Your task to perform on an android device: Open eBay Image 0: 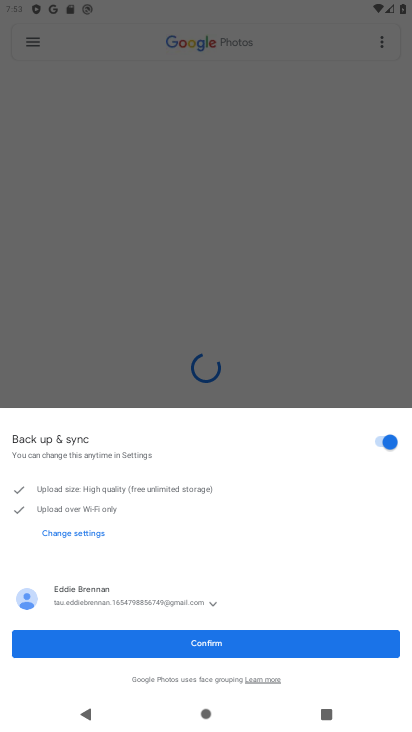
Step 0: press home button
Your task to perform on an android device: Open eBay Image 1: 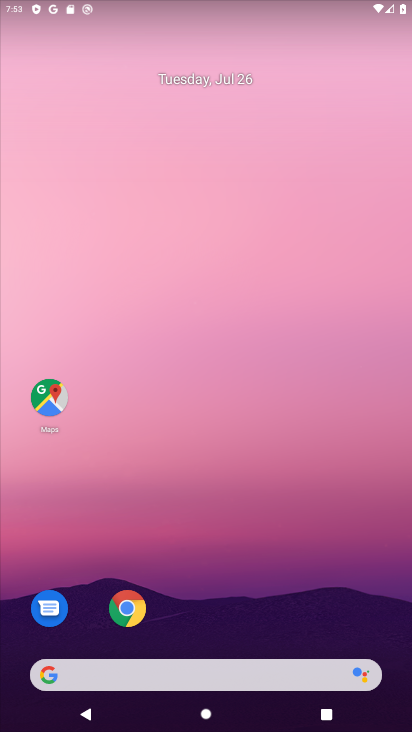
Step 1: drag from (227, 587) to (210, 66)
Your task to perform on an android device: Open eBay Image 2: 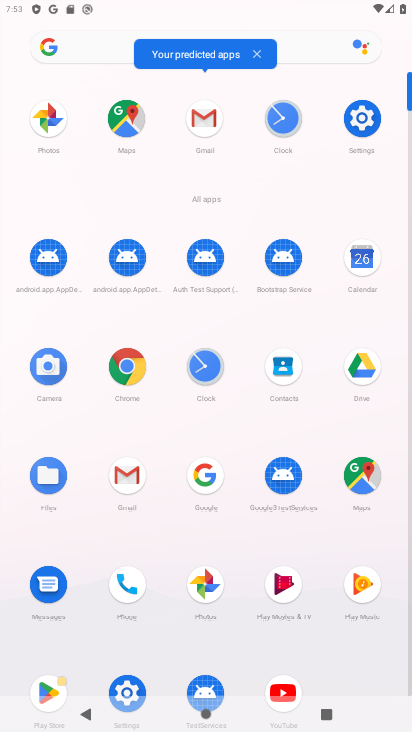
Step 2: click (122, 366)
Your task to perform on an android device: Open eBay Image 3: 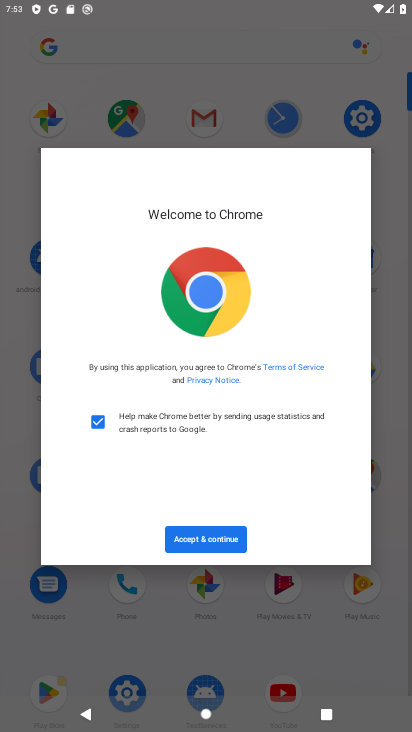
Step 3: click (191, 533)
Your task to perform on an android device: Open eBay Image 4: 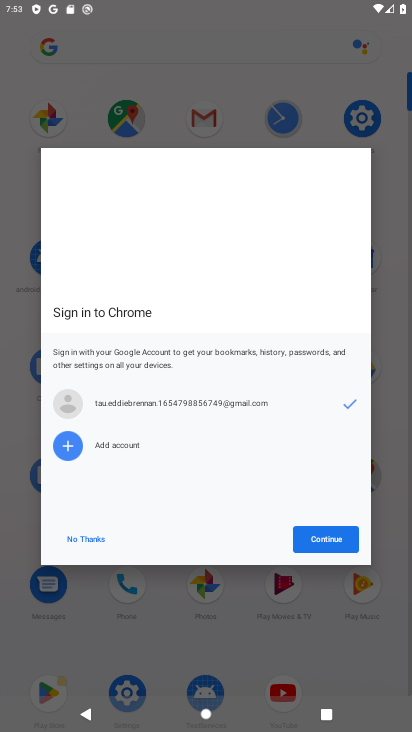
Step 4: click (326, 546)
Your task to perform on an android device: Open eBay Image 5: 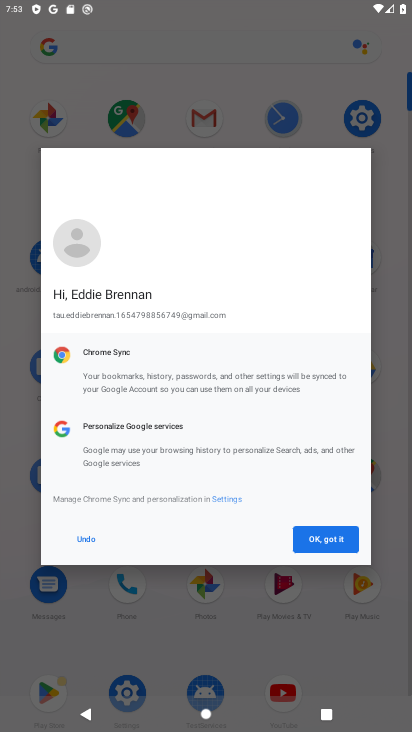
Step 5: click (309, 543)
Your task to perform on an android device: Open eBay Image 6: 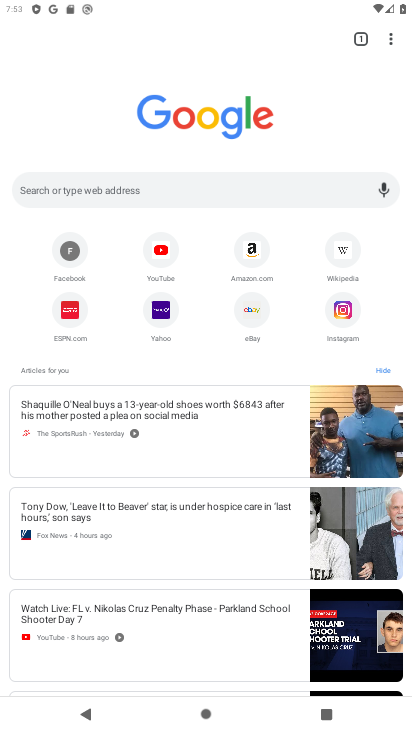
Step 6: click (249, 313)
Your task to perform on an android device: Open eBay Image 7: 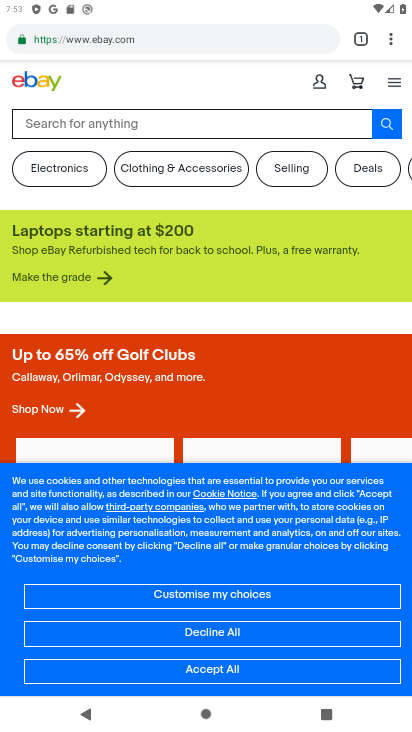
Step 7: task complete